Your task to perform on an android device: change notifications settings Image 0: 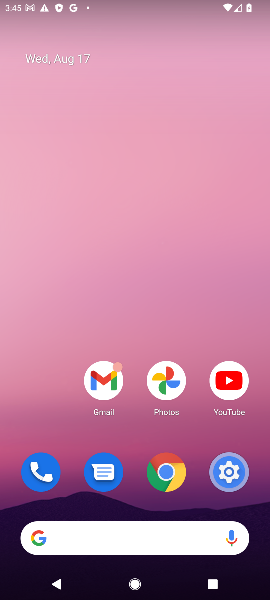
Step 0: click (218, 467)
Your task to perform on an android device: change notifications settings Image 1: 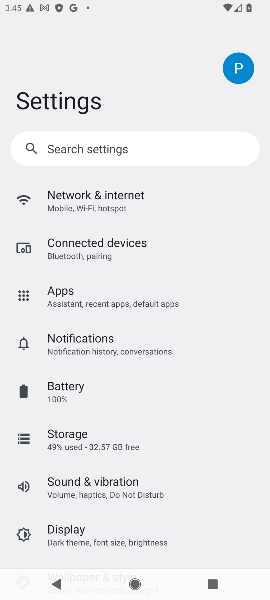
Step 1: click (106, 350)
Your task to perform on an android device: change notifications settings Image 2: 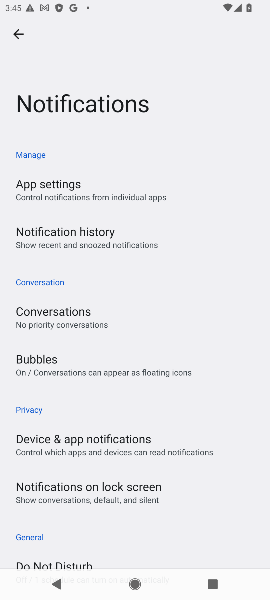
Step 2: click (82, 180)
Your task to perform on an android device: change notifications settings Image 3: 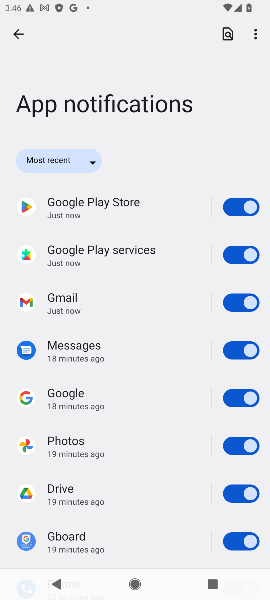
Step 3: click (222, 203)
Your task to perform on an android device: change notifications settings Image 4: 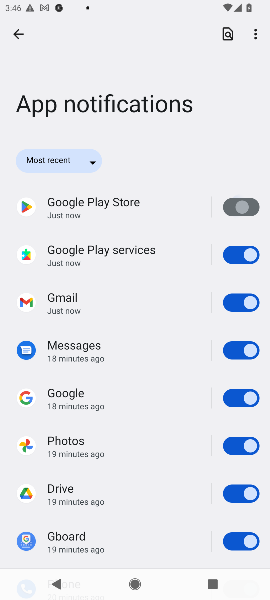
Step 4: click (217, 249)
Your task to perform on an android device: change notifications settings Image 5: 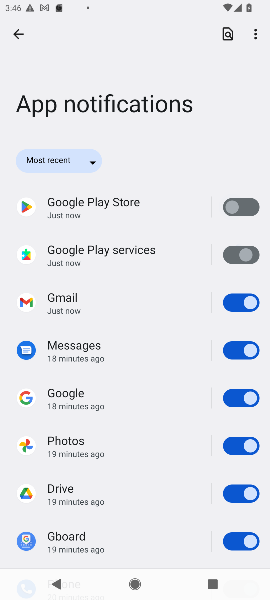
Step 5: click (227, 305)
Your task to perform on an android device: change notifications settings Image 6: 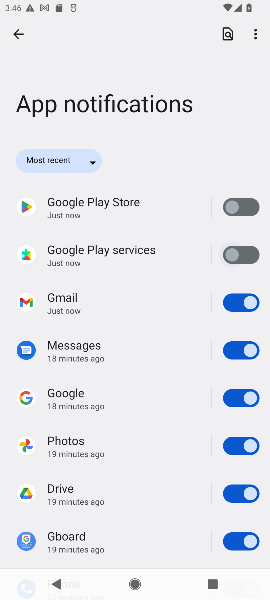
Step 6: click (224, 358)
Your task to perform on an android device: change notifications settings Image 7: 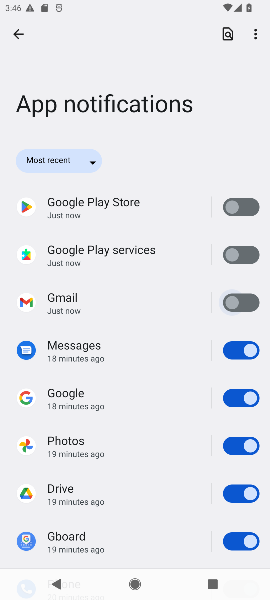
Step 7: click (234, 385)
Your task to perform on an android device: change notifications settings Image 8: 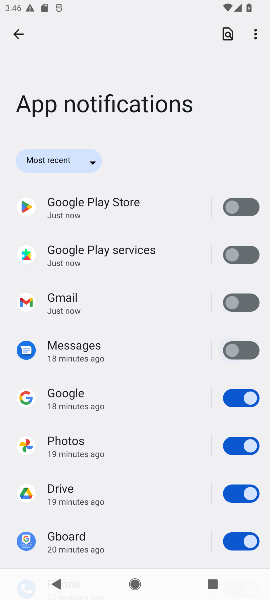
Step 8: click (225, 453)
Your task to perform on an android device: change notifications settings Image 9: 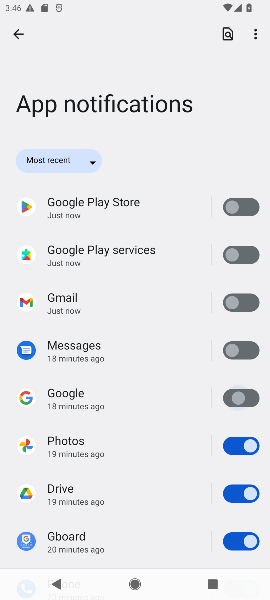
Step 9: click (229, 490)
Your task to perform on an android device: change notifications settings Image 10: 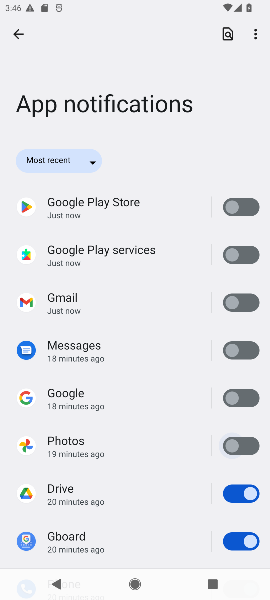
Step 10: click (224, 535)
Your task to perform on an android device: change notifications settings Image 11: 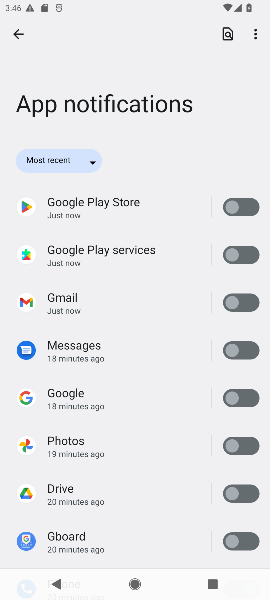
Step 11: task complete